Your task to perform on an android device: Search for razer huntsman on bestbuy.com, select the first entry, add it to the cart, then select checkout. Image 0: 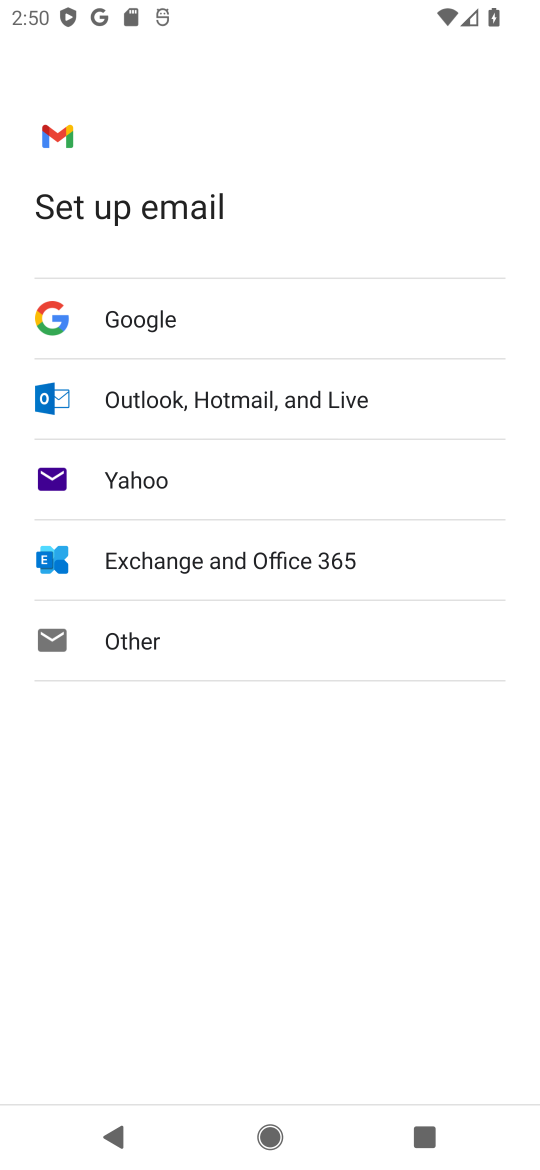
Step 0: press home button
Your task to perform on an android device: Search for razer huntsman on bestbuy.com, select the first entry, add it to the cart, then select checkout. Image 1: 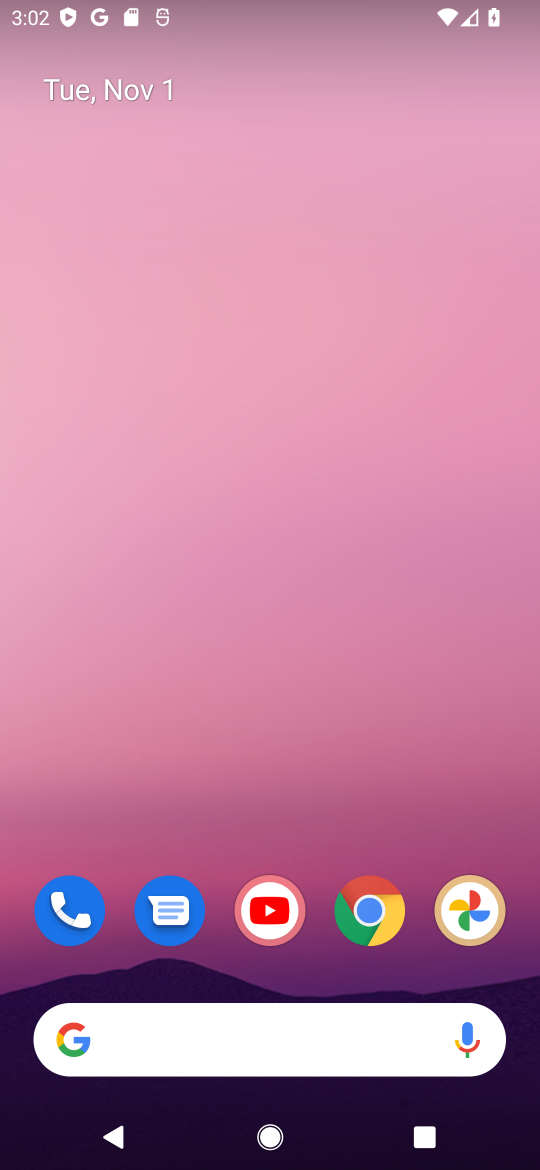
Step 1: click (308, 1051)
Your task to perform on an android device: Search for razer huntsman on bestbuy.com, select the first entry, add it to the cart, then select checkout. Image 2: 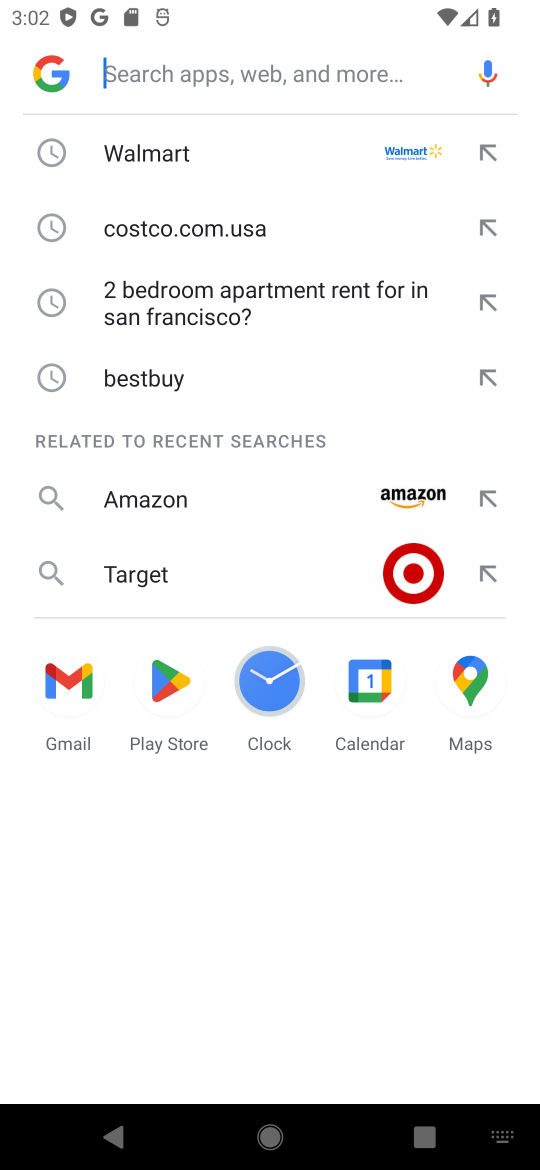
Step 2: type "bestbuy.com"
Your task to perform on an android device: Search for razer huntsman on bestbuy.com, select the first entry, add it to the cart, then select checkout. Image 3: 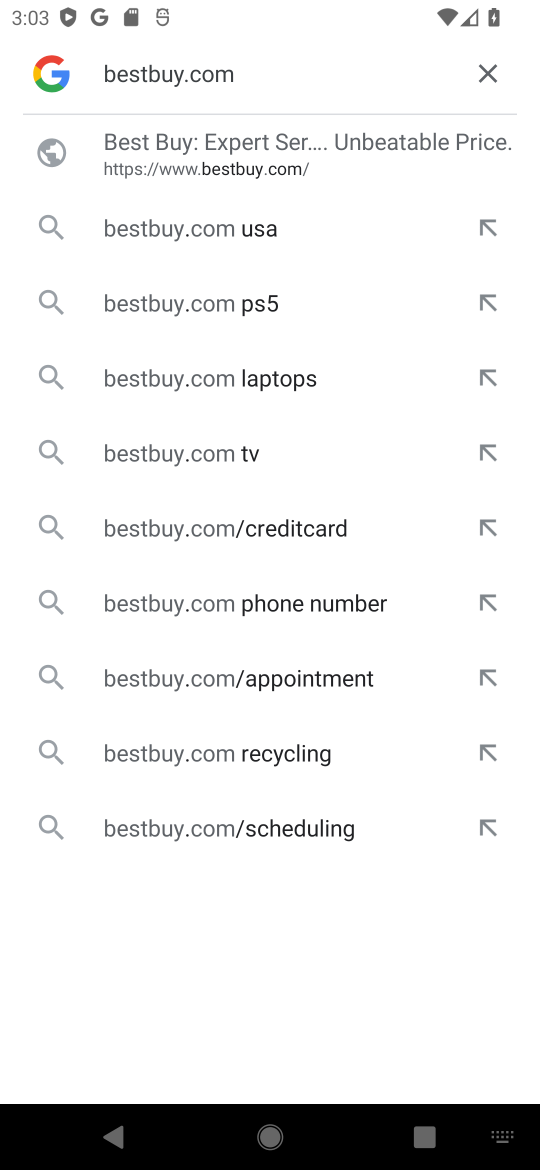
Step 3: click (262, 137)
Your task to perform on an android device: Search for razer huntsman on bestbuy.com, select the first entry, add it to the cart, then select checkout. Image 4: 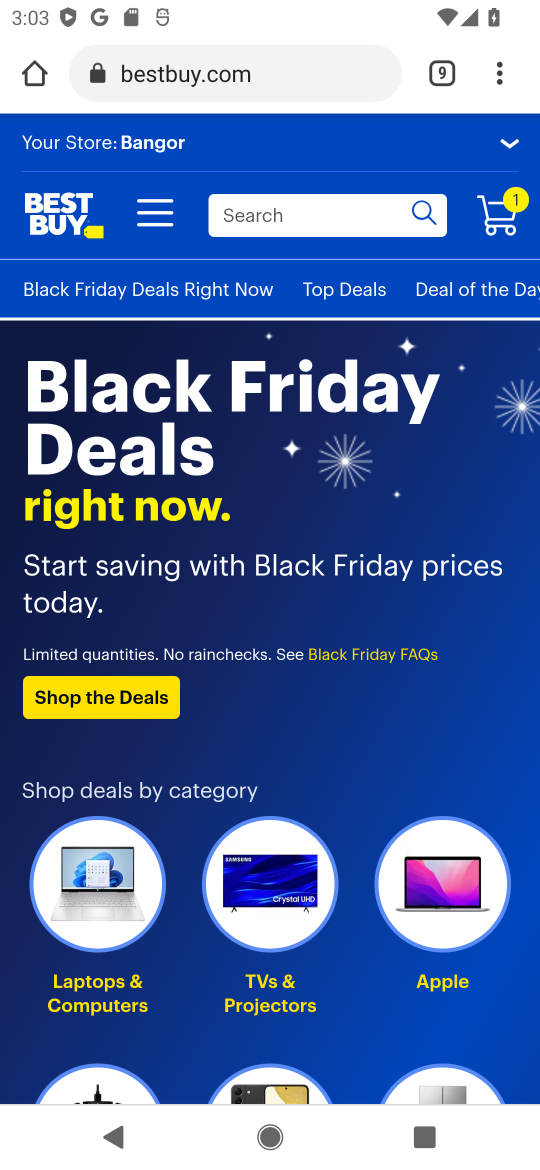
Step 4: click (263, 218)
Your task to perform on an android device: Search for razer huntsman on bestbuy.com, select the first entry, add it to the cart, then select checkout. Image 5: 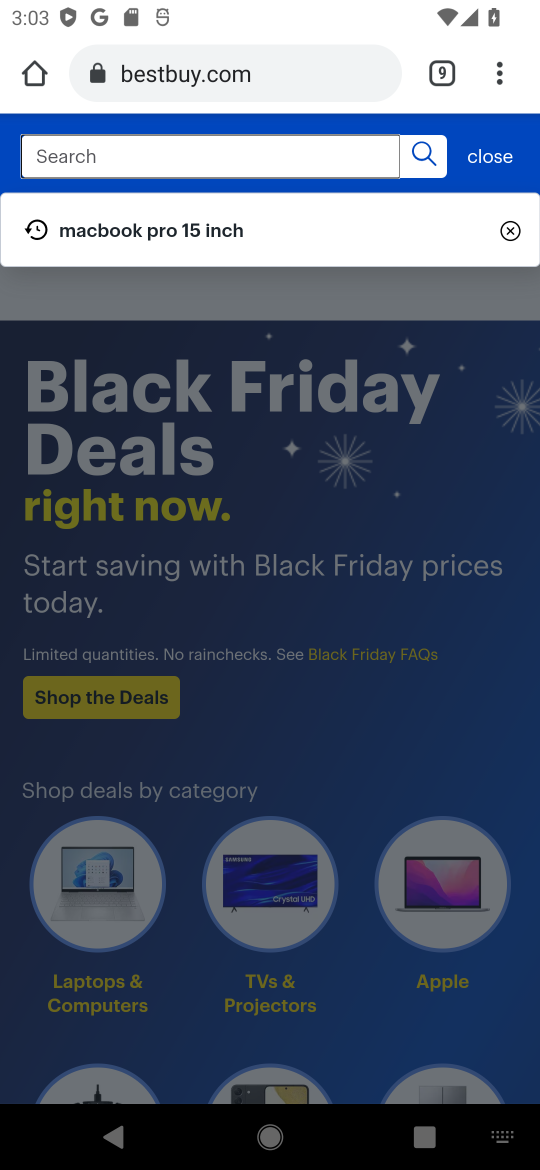
Step 5: click (215, 155)
Your task to perform on an android device: Search for razer huntsman on bestbuy.com, select the first entry, add it to the cart, then select checkout. Image 6: 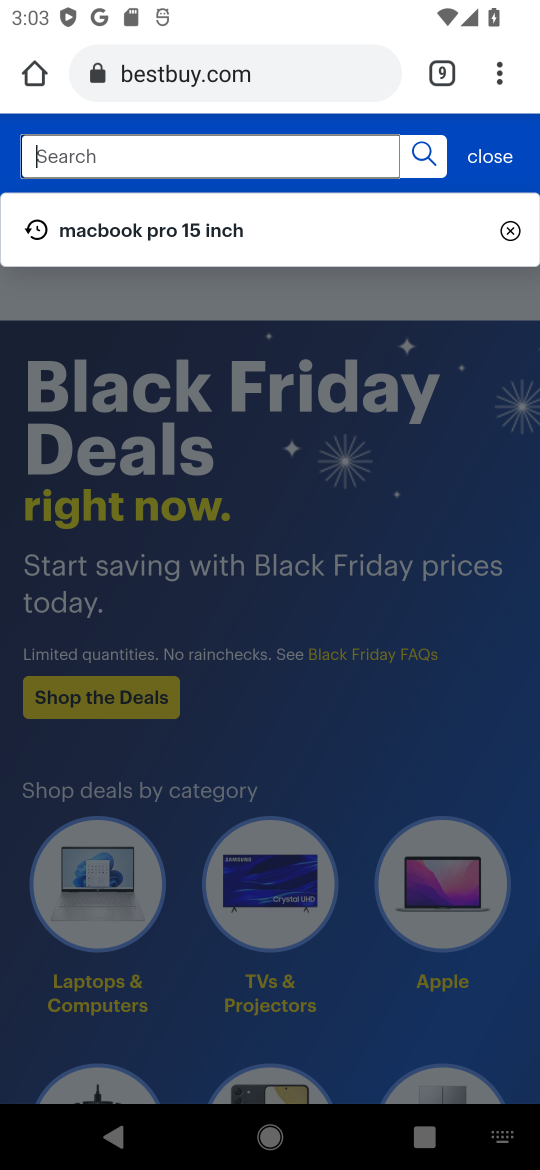
Step 6: type "razer huntsman"
Your task to perform on an android device: Search for razer huntsman on bestbuy.com, select the first entry, add it to the cart, then select checkout. Image 7: 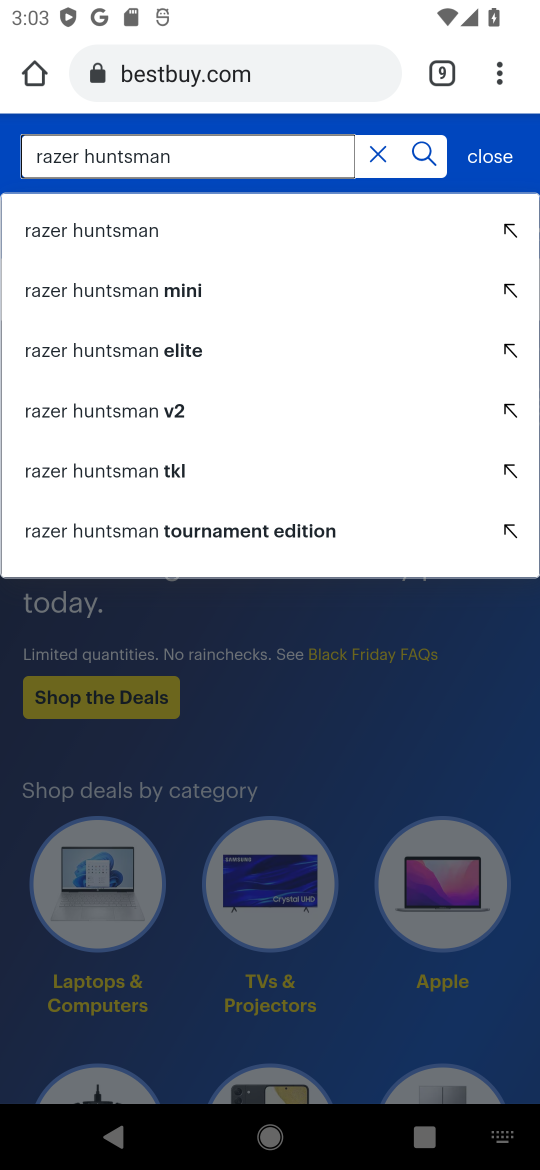
Step 7: click (150, 238)
Your task to perform on an android device: Search for razer huntsman on bestbuy.com, select the first entry, add it to the cart, then select checkout. Image 8: 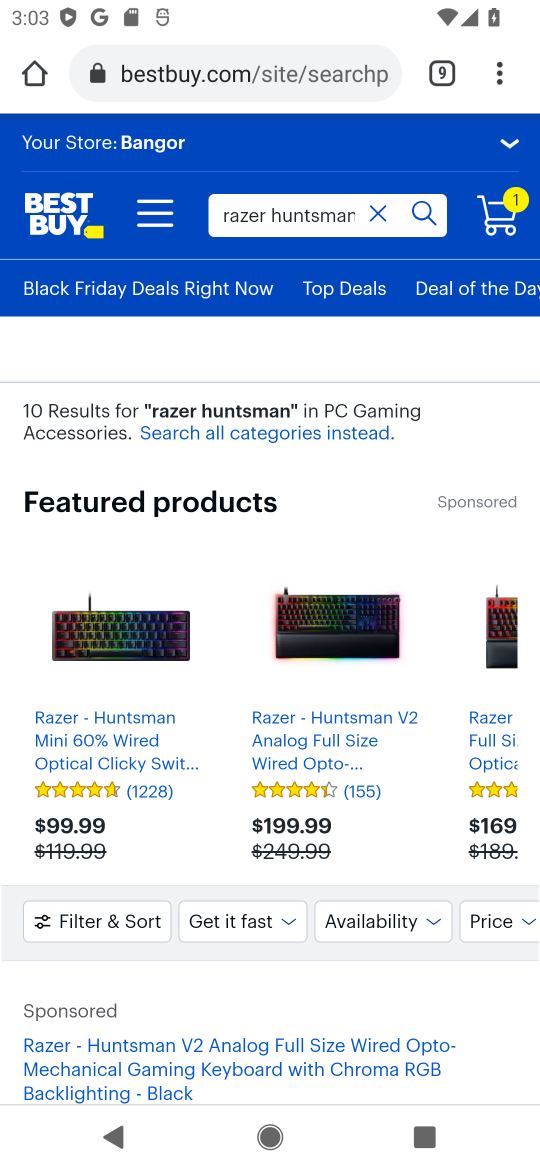
Step 8: click (117, 767)
Your task to perform on an android device: Search for razer huntsman on bestbuy.com, select the first entry, add it to the cart, then select checkout. Image 9: 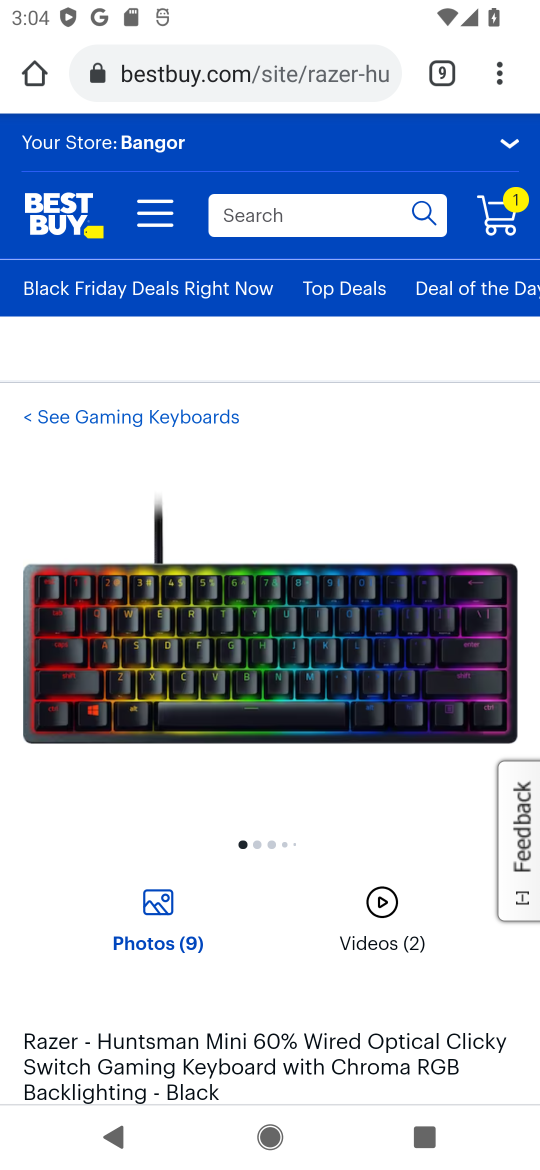
Step 9: drag from (287, 843) to (349, 516)
Your task to perform on an android device: Search for razer huntsman on bestbuy.com, select the first entry, add it to the cart, then select checkout. Image 10: 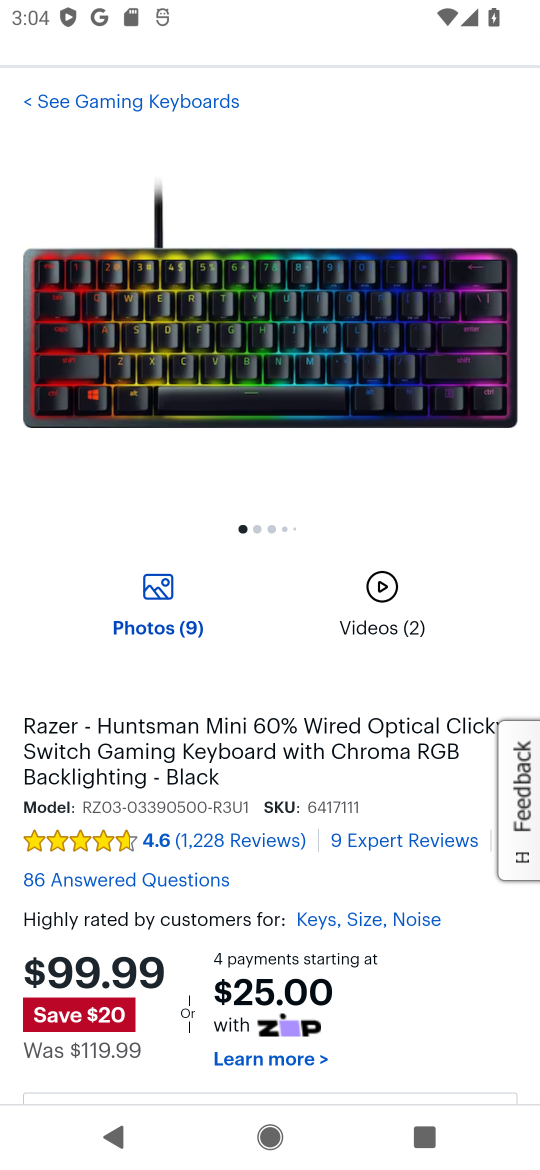
Step 10: drag from (286, 872) to (339, 604)
Your task to perform on an android device: Search for razer huntsman on bestbuy.com, select the first entry, add it to the cart, then select checkout. Image 11: 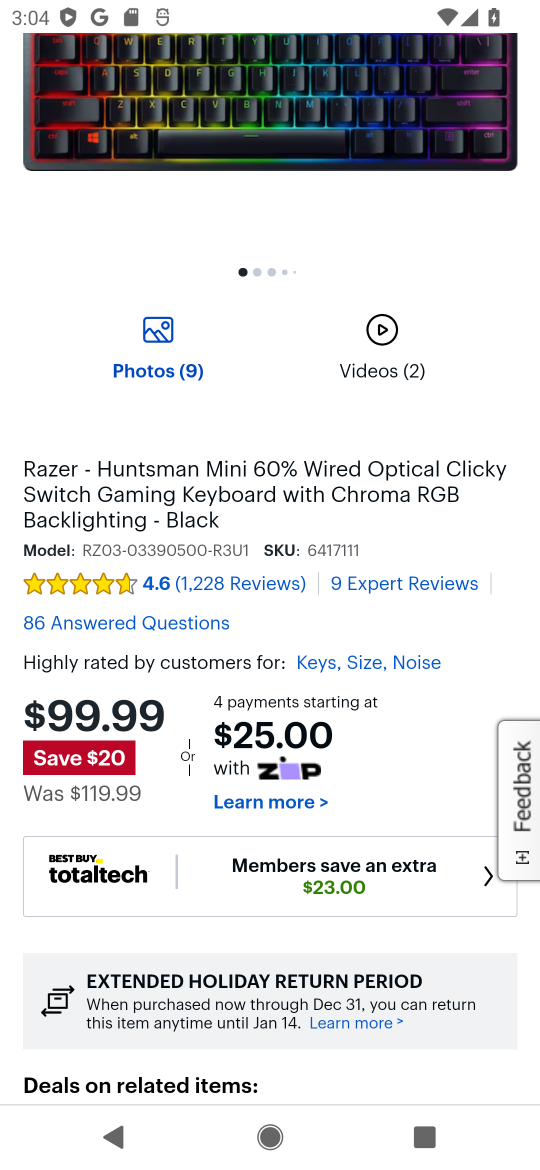
Step 11: drag from (275, 821) to (314, 534)
Your task to perform on an android device: Search for razer huntsman on bestbuy.com, select the first entry, add it to the cart, then select checkout. Image 12: 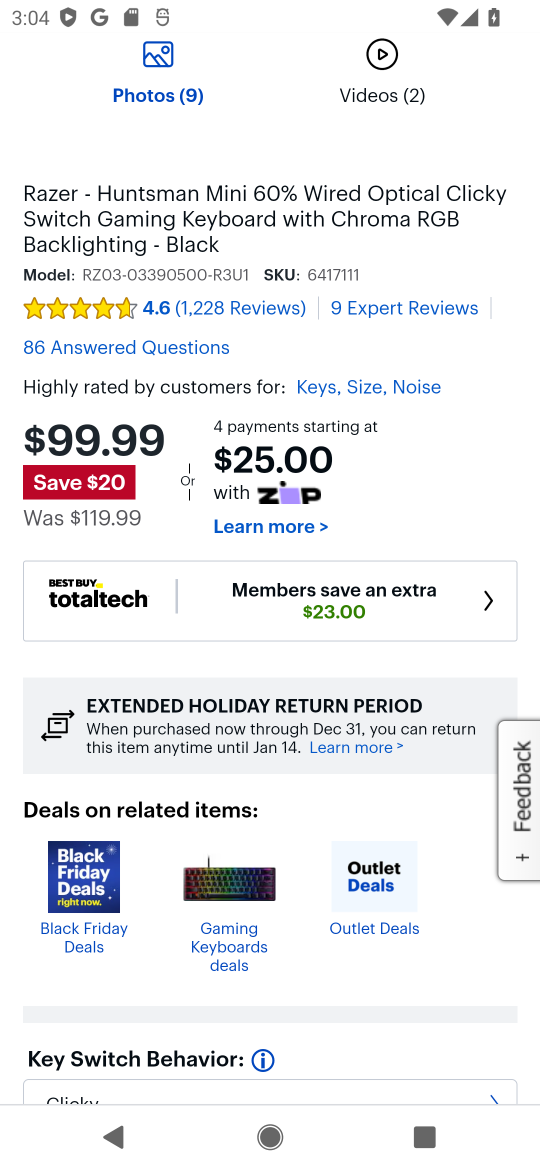
Step 12: drag from (345, 810) to (365, 484)
Your task to perform on an android device: Search for razer huntsman on bestbuy.com, select the first entry, add it to the cart, then select checkout. Image 13: 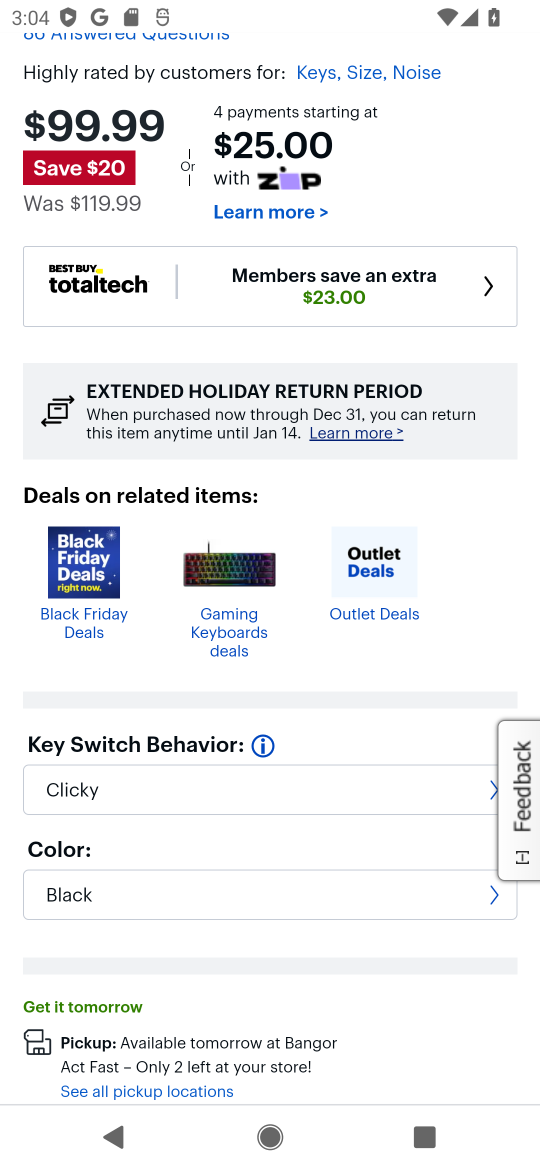
Step 13: drag from (207, 809) to (247, 433)
Your task to perform on an android device: Search for razer huntsman on bestbuy.com, select the first entry, add it to the cart, then select checkout. Image 14: 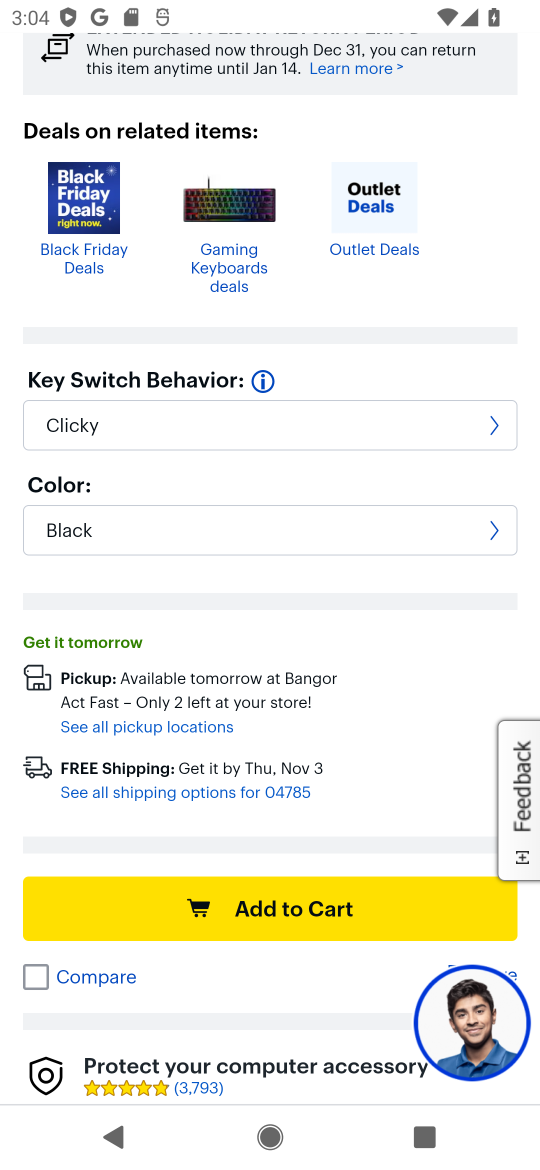
Step 14: click (274, 908)
Your task to perform on an android device: Search for razer huntsman on bestbuy.com, select the first entry, add it to the cart, then select checkout. Image 15: 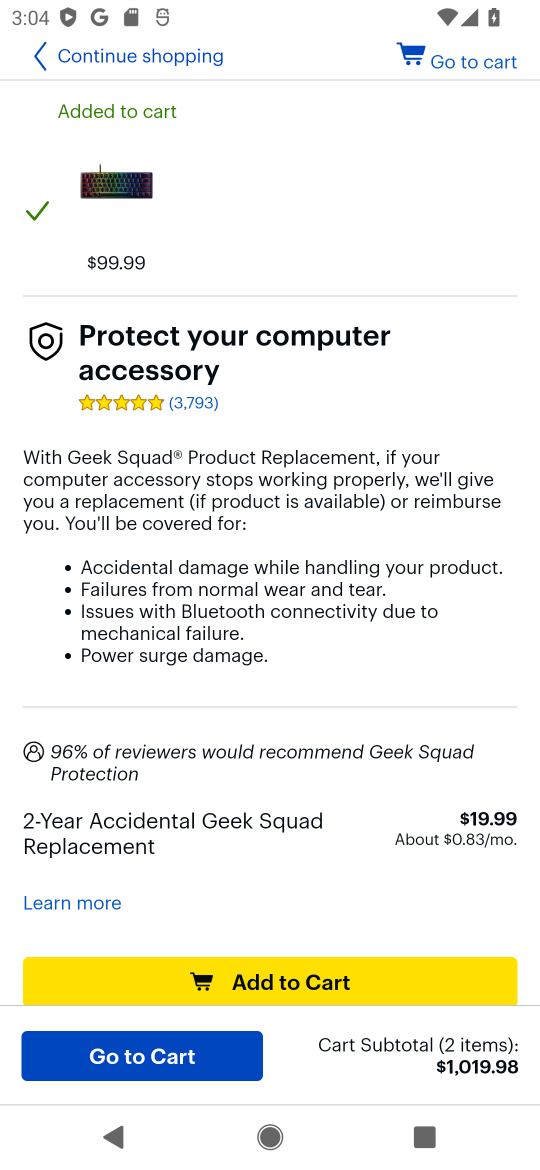
Step 15: click (465, 60)
Your task to perform on an android device: Search for razer huntsman on bestbuy.com, select the first entry, add it to the cart, then select checkout. Image 16: 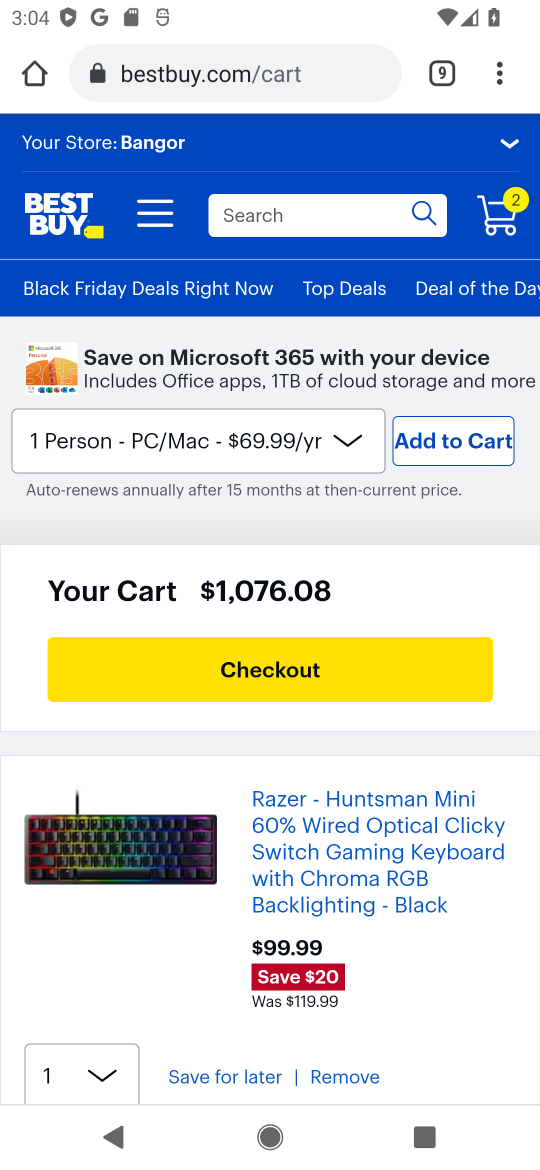
Step 16: click (294, 663)
Your task to perform on an android device: Search for razer huntsman on bestbuy.com, select the first entry, add it to the cart, then select checkout. Image 17: 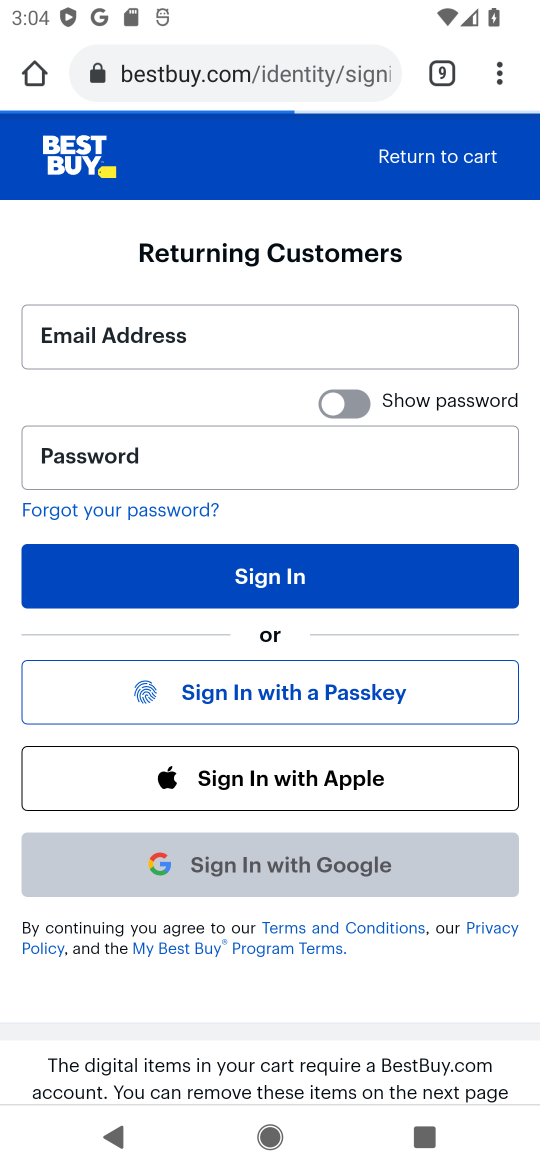
Step 17: task complete